Your task to perform on an android device: turn notification dots off Image 0: 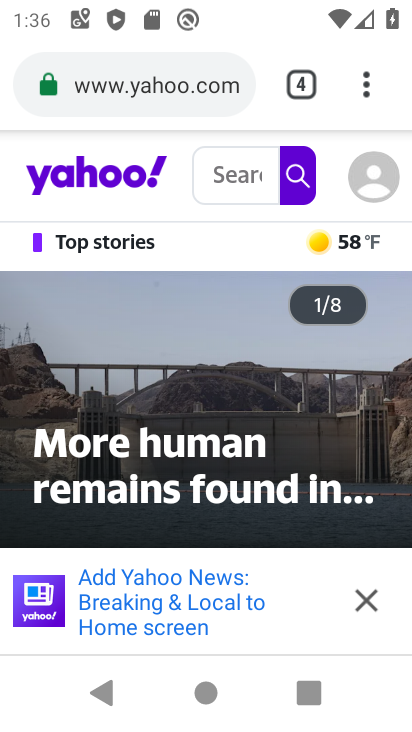
Step 0: press home button
Your task to perform on an android device: turn notification dots off Image 1: 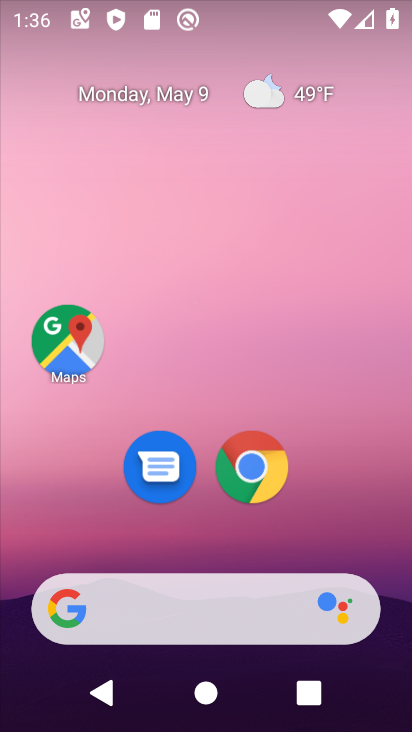
Step 1: drag from (357, 516) to (366, 8)
Your task to perform on an android device: turn notification dots off Image 2: 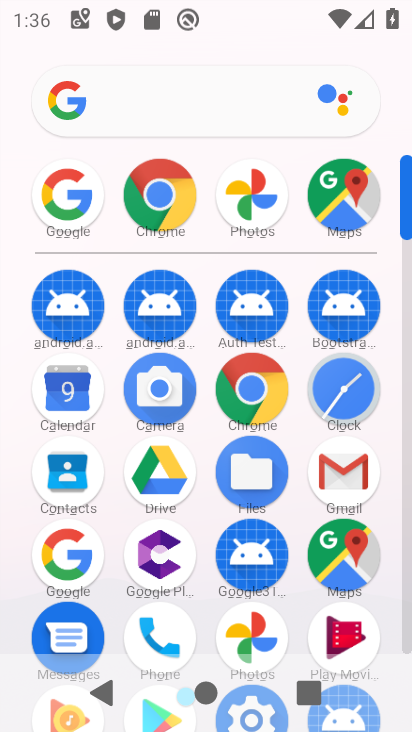
Step 2: drag from (176, 656) to (190, 287)
Your task to perform on an android device: turn notification dots off Image 3: 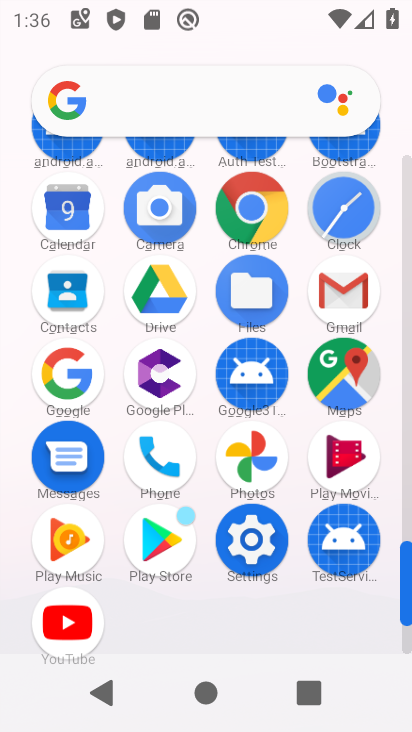
Step 3: click (250, 554)
Your task to perform on an android device: turn notification dots off Image 4: 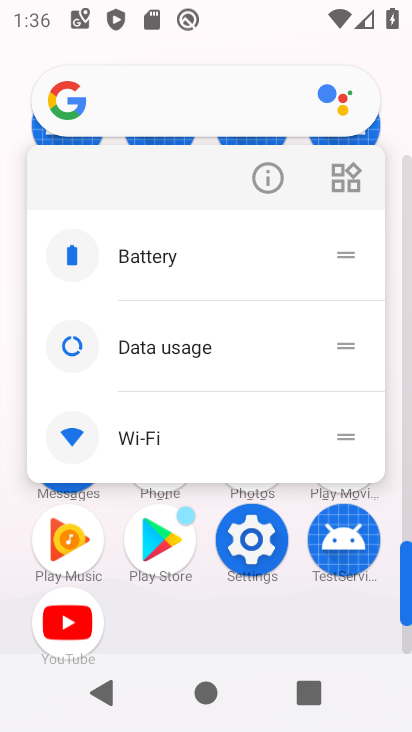
Step 4: click (250, 553)
Your task to perform on an android device: turn notification dots off Image 5: 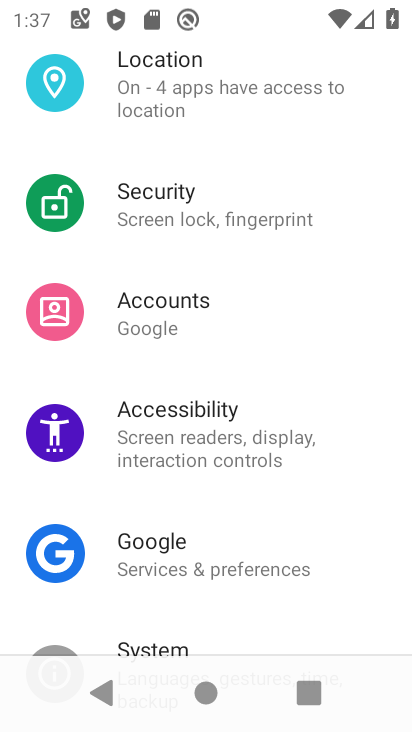
Step 5: drag from (290, 170) to (283, 653)
Your task to perform on an android device: turn notification dots off Image 6: 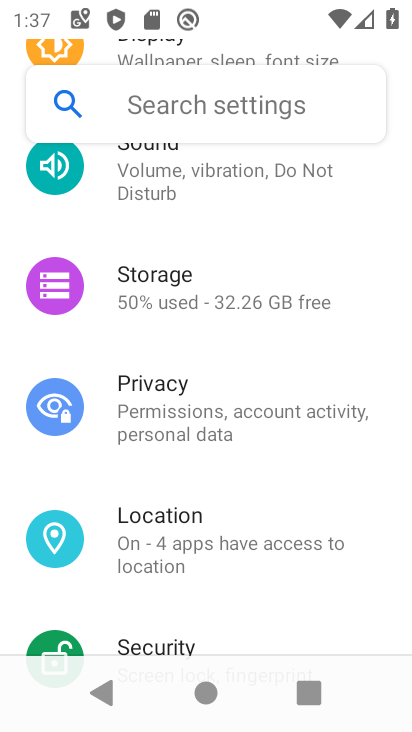
Step 6: drag from (244, 186) to (245, 585)
Your task to perform on an android device: turn notification dots off Image 7: 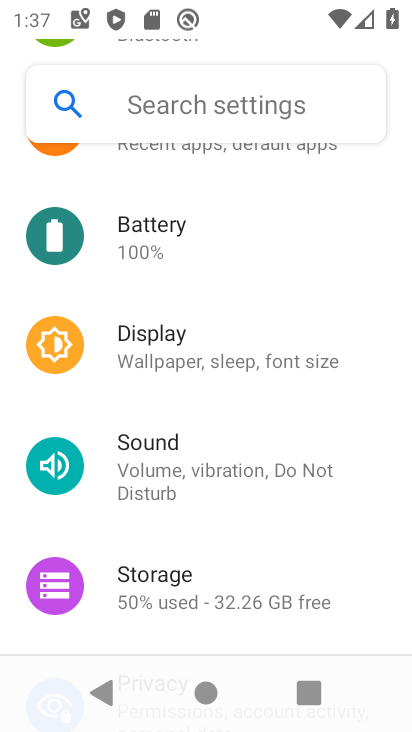
Step 7: drag from (229, 236) to (267, 610)
Your task to perform on an android device: turn notification dots off Image 8: 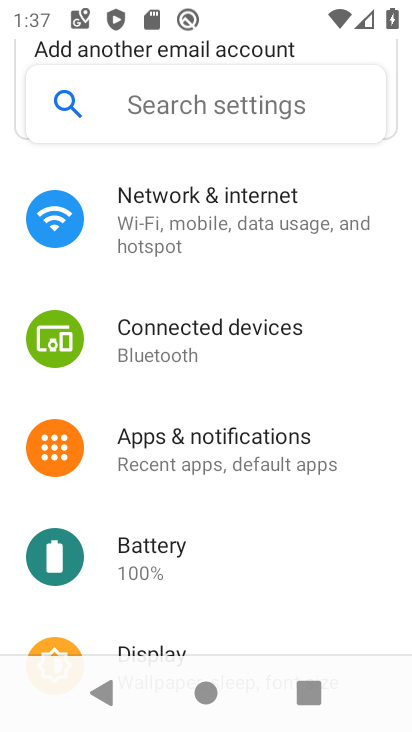
Step 8: click (194, 449)
Your task to perform on an android device: turn notification dots off Image 9: 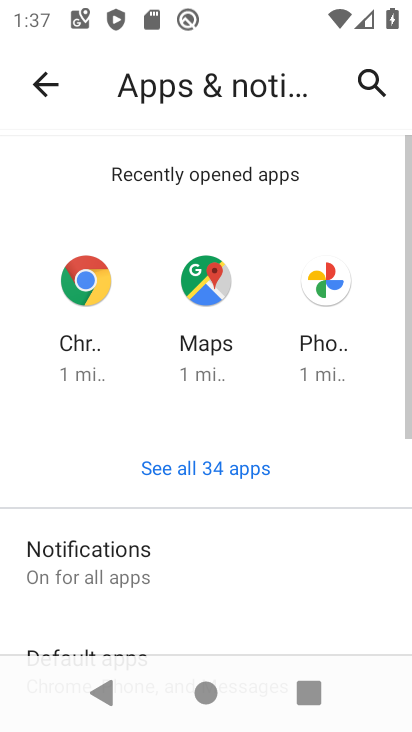
Step 9: drag from (279, 605) to (319, 210)
Your task to perform on an android device: turn notification dots off Image 10: 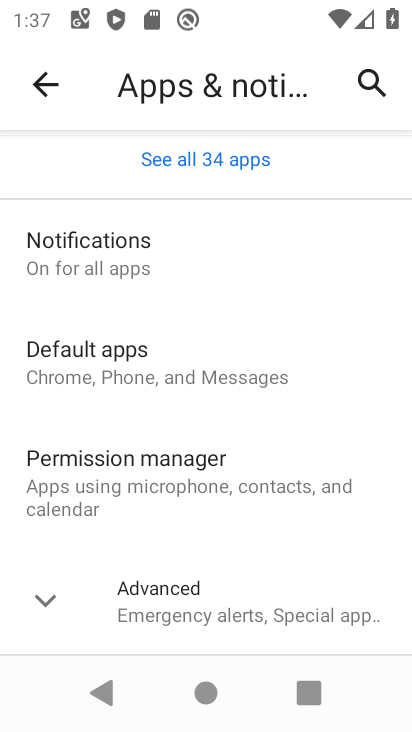
Step 10: click (90, 248)
Your task to perform on an android device: turn notification dots off Image 11: 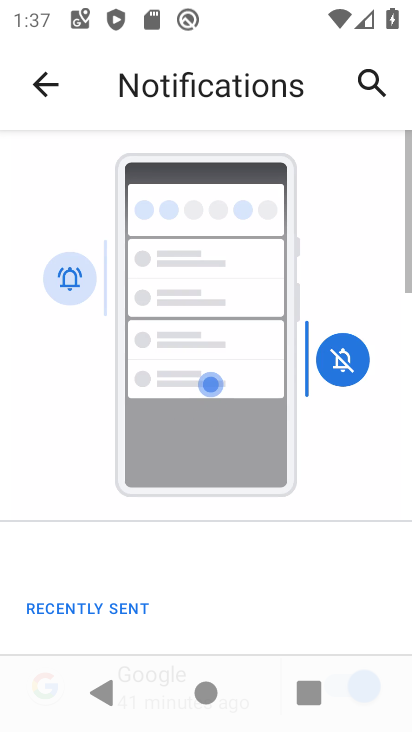
Step 11: drag from (258, 627) to (294, 121)
Your task to perform on an android device: turn notification dots off Image 12: 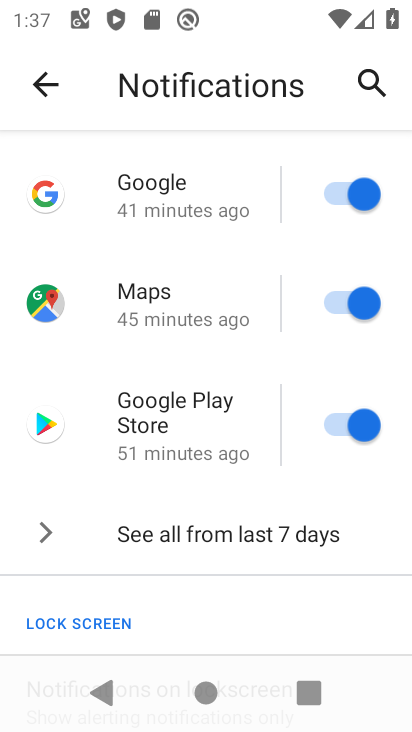
Step 12: drag from (235, 635) to (236, 131)
Your task to perform on an android device: turn notification dots off Image 13: 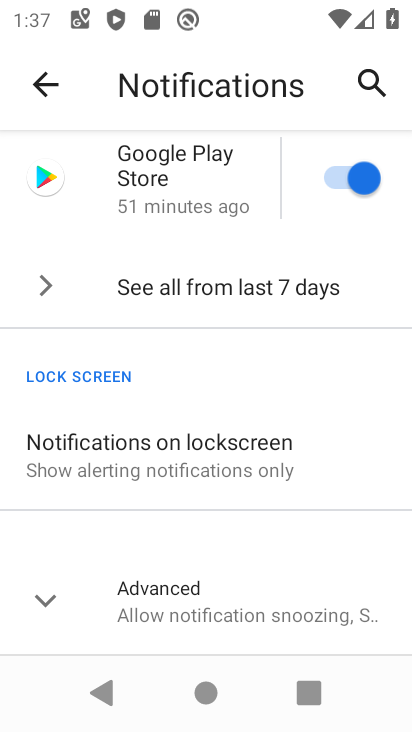
Step 13: click (237, 593)
Your task to perform on an android device: turn notification dots off Image 14: 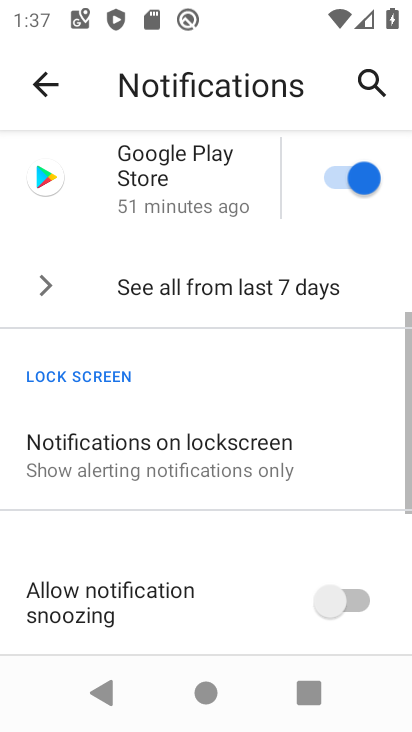
Step 14: drag from (252, 633) to (260, 187)
Your task to perform on an android device: turn notification dots off Image 15: 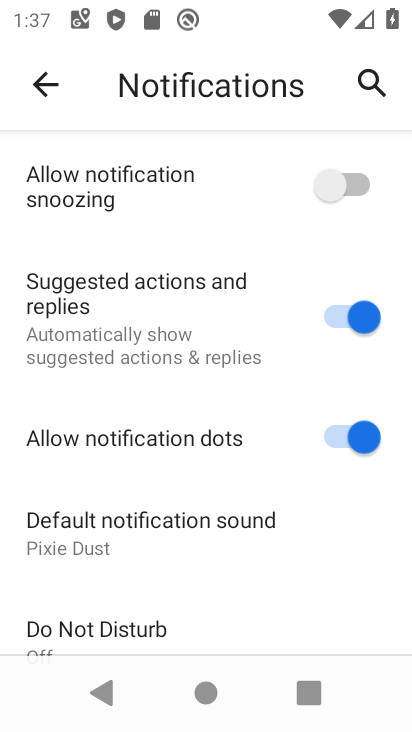
Step 15: click (344, 436)
Your task to perform on an android device: turn notification dots off Image 16: 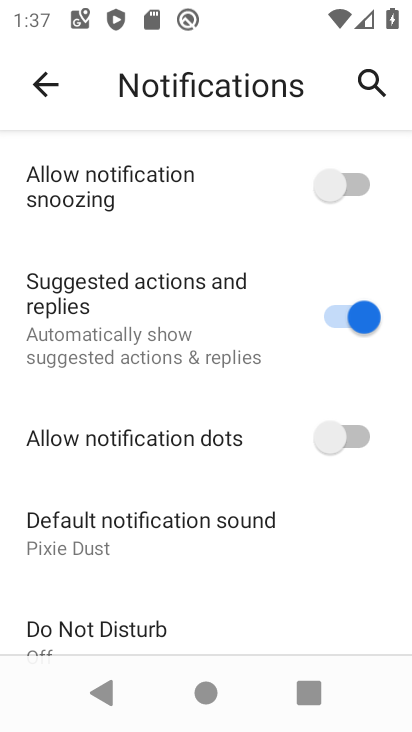
Step 16: task complete